Your task to perform on an android device: Open Chrome and go to the settings page Image 0: 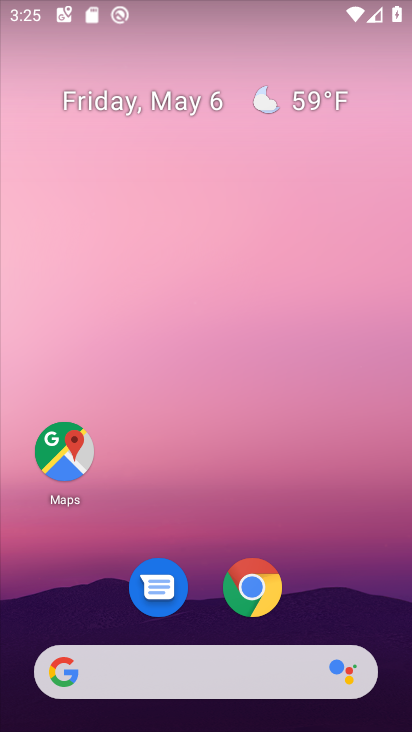
Step 0: drag from (329, 572) to (320, 37)
Your task to perform on an android device: Open Chrome and go to the settings page Image 1: 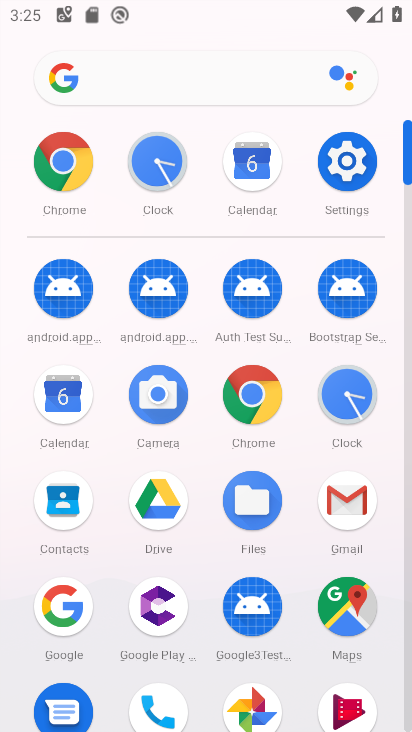
Step 1: click (67, 156)
Your task to perform on an android device: Open Chrome and go to the settings page Image 2: 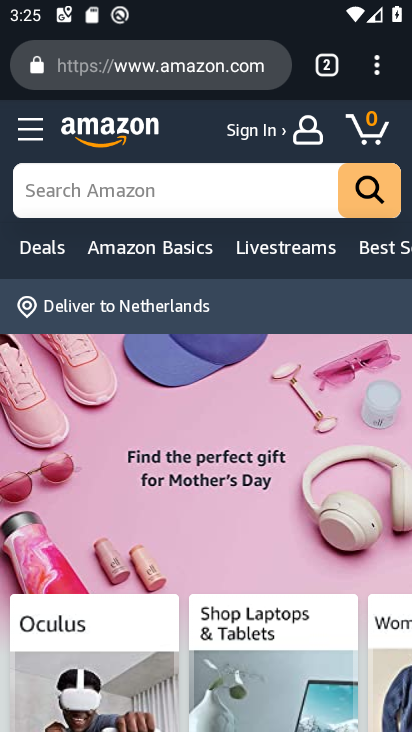
Step 2: task complete